Your task to perform on an android device: Search for pizza restaurants on Maps Image 0: 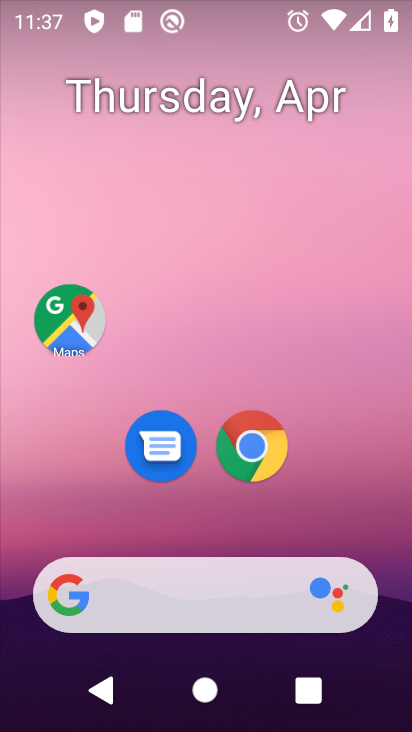
Step 0: click (65, 285)
Your task to perform on an android device: Search for pizza restaurants on Maps Image 1: 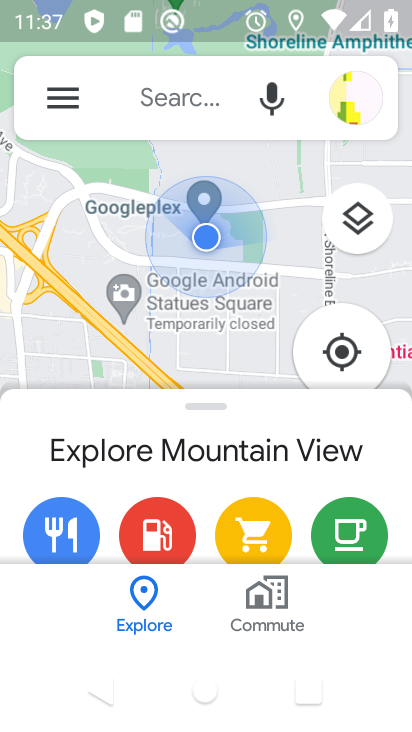
Step 1: click (158, 102)
Your task to perform on an android device: Search for pizza restaurants on Maps Image 2: 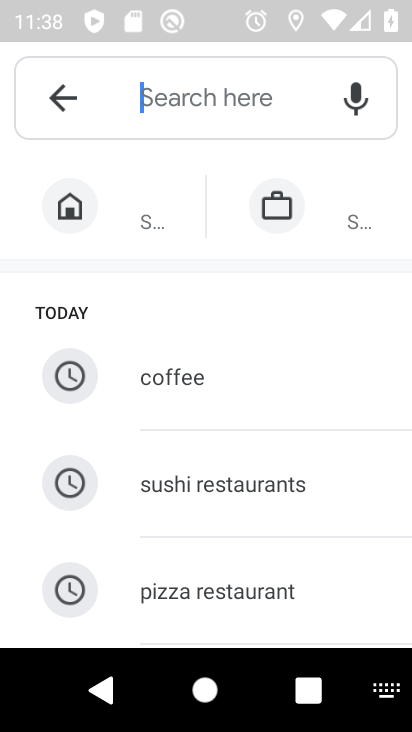
Step 2: click (307, 597)
Your task to perform on an android device: Search for pizza restaurants on Maps Image 3: 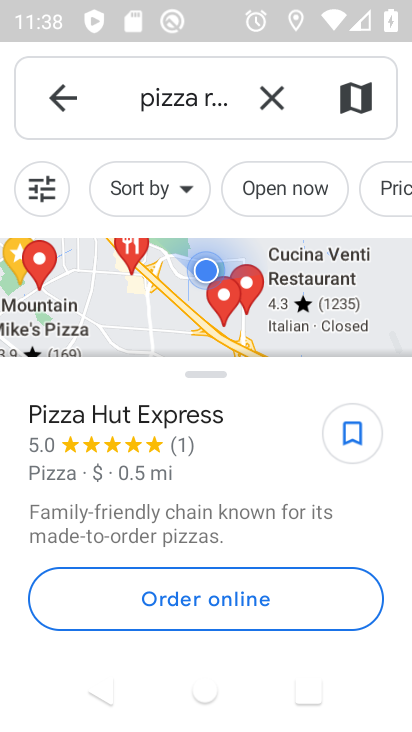
Step 3: task complete